Your task to perform on an android device: Find coffee shops on Maps Image 0: 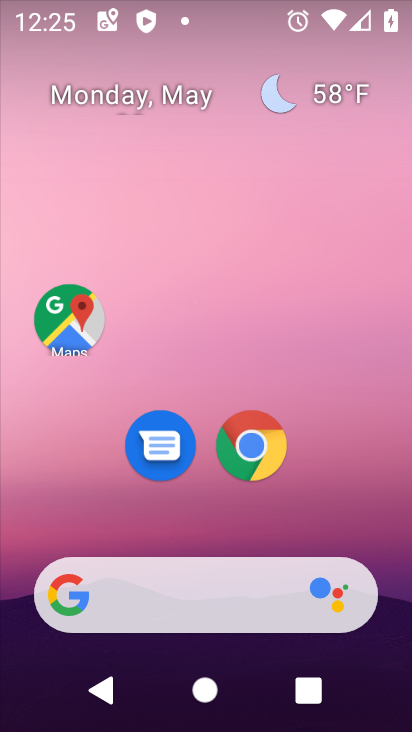
Step 0: drag from (208, 532) to (203, 71)
Your task to perform on an android device: Find coffee shops on Maps Image 1: 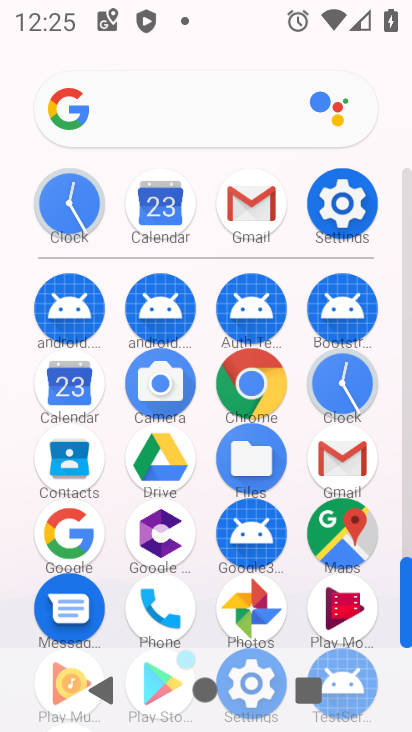
Step 1: click (340, 533)
Your task to perform on an android device: Find coffee shops on Maps Image 2: 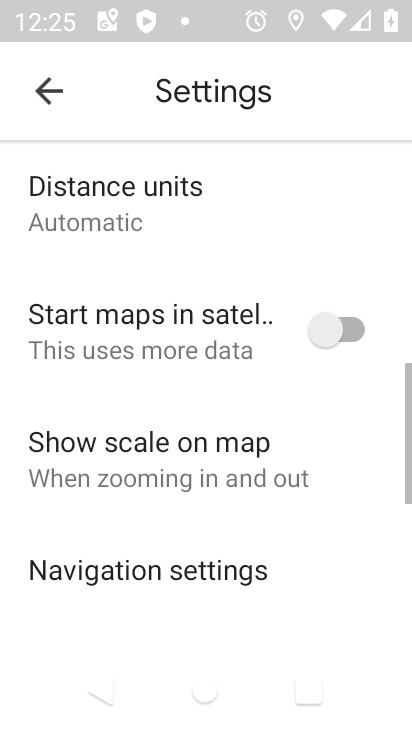
Step 2: click (56, 96)
Your task to perform on an android device: Find coffee shops on Maps Image 3: 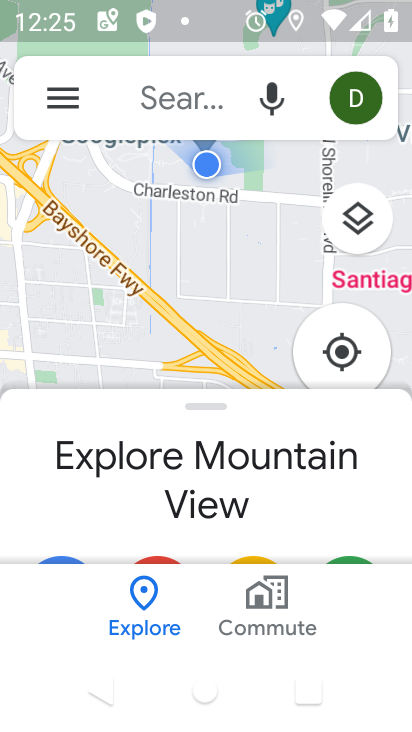
Step 3: click (142, 97)
Your task to perform on an android device: Find coffee shops on Maps Image 4: 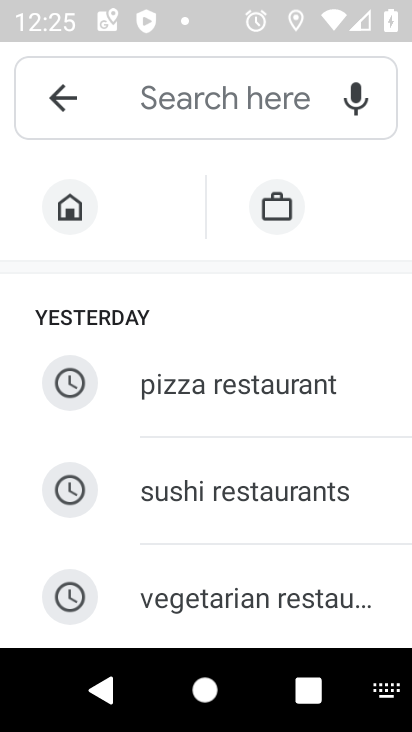
Step 4: type "coffee"
Your task to perform on an android device: Find coffee shops on Maps Image 5: 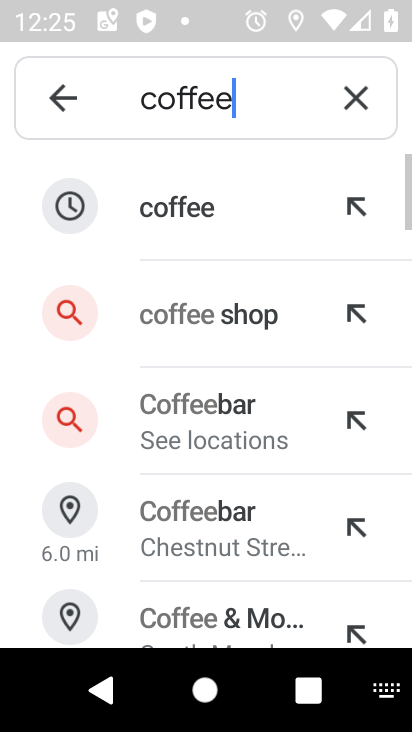
Step 5: click (215, 223)
Your task to perform on an android device: Find coffee shops on Maps Image 6: 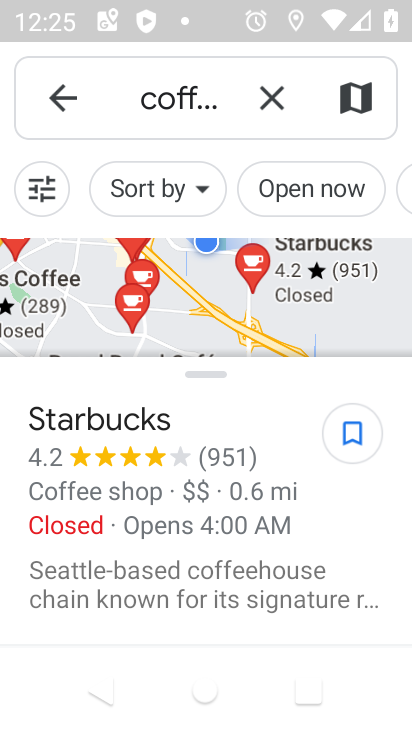
Step 6: task complete